Your task to perform on an android device: turn on wifi Image 0: 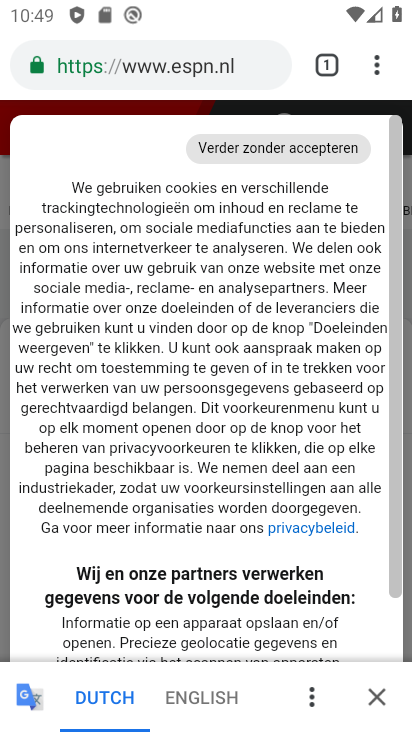
Step 0: press home button
Your task to perform on an android device: turn on wifi Image 1: 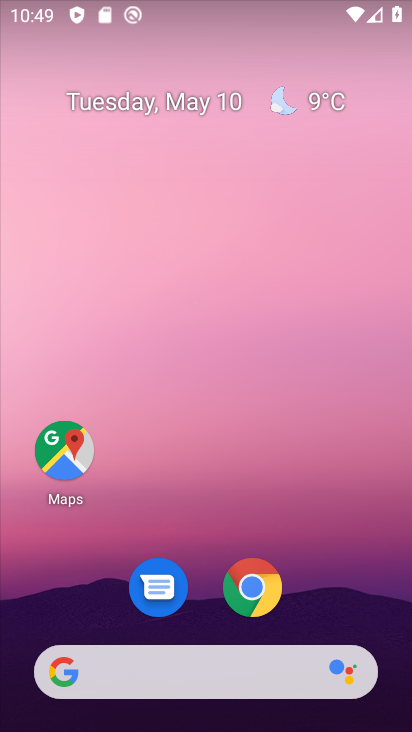
Step 1: drag from (327, 601) to (370, 1)
Your task to perform on an android device: turn on wifi Image 2: 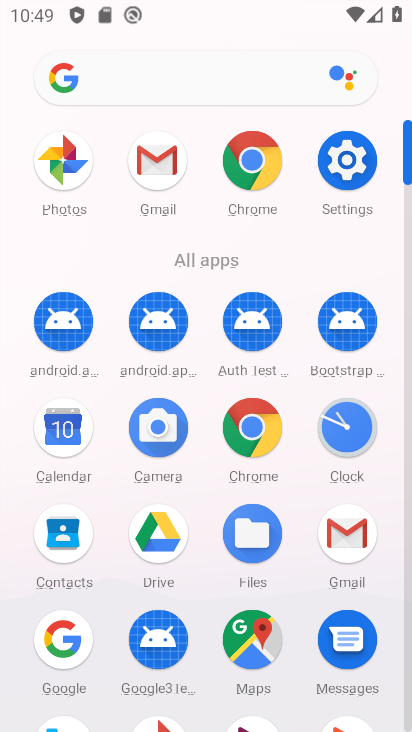
Step 2: click (354, 172)
Your task to perform on an android device: turn on wifi Image 3: 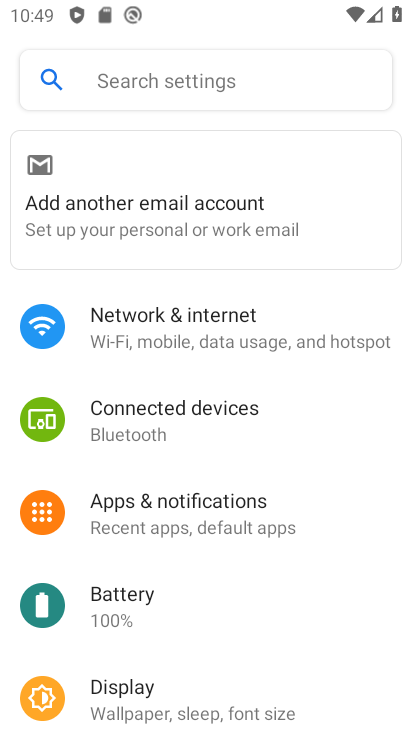
Step 3: click (166, 330)
Your task to perform on an android device: turn on wifi Image 4: 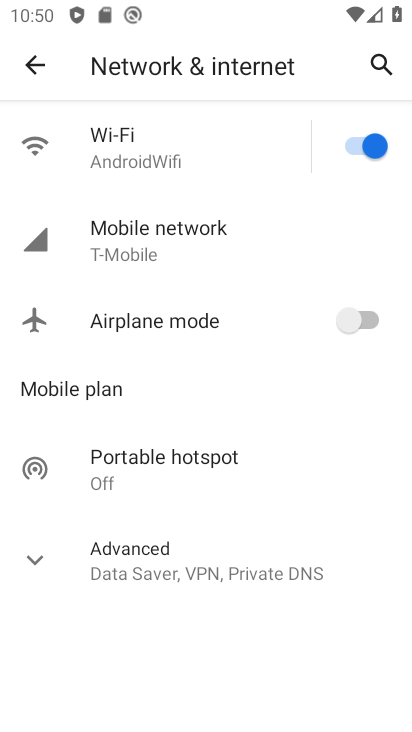
Step 4: task complete